Your task to perform on an android device: delete the emails in spam in the gmail app Image 0: 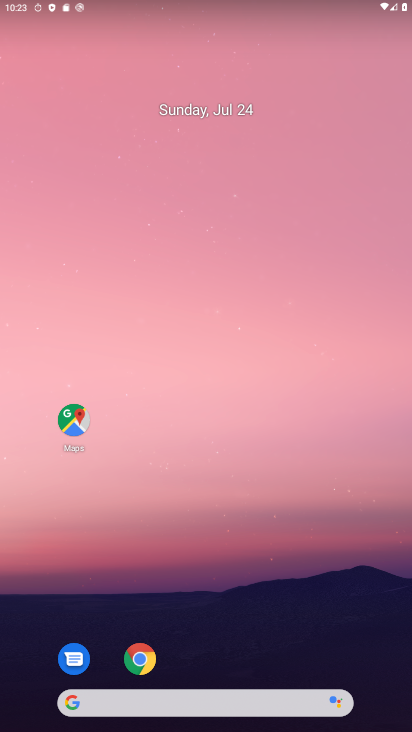
Step 0: drag from (231, 662) to (312, 145)
Your task to perform on an android device: delete the emails in spam in the gmail app Image 1: 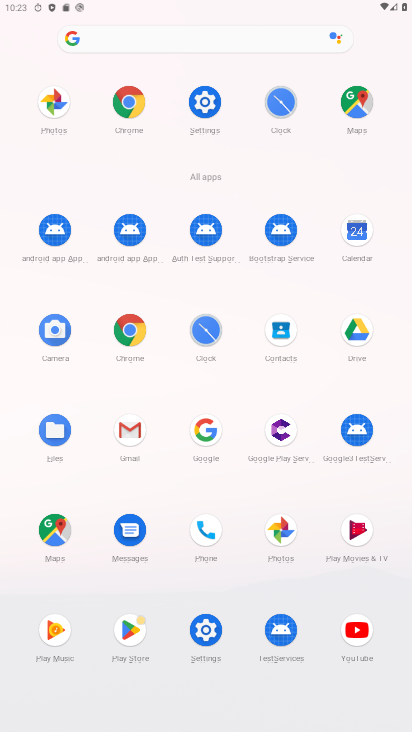
Step 1: drag from (131, 432) to (90, 227)
Your task to perform on an android device: delete the emails in spam in the gmail app Image 2: 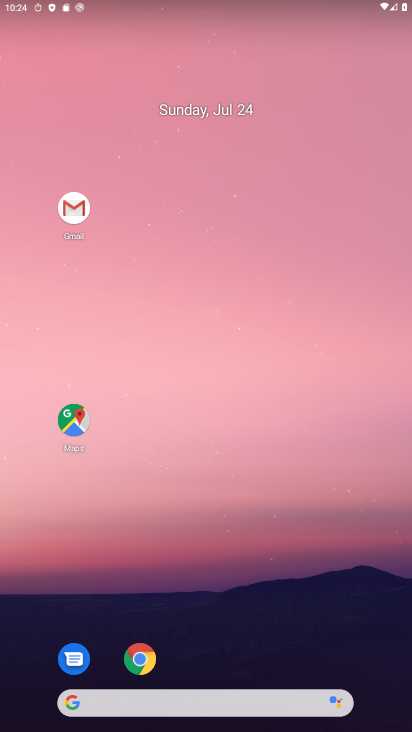
Step 2: click (74, 201)
Your task to perform on an android device: delete the emails in spam in the gmail app Image 3: 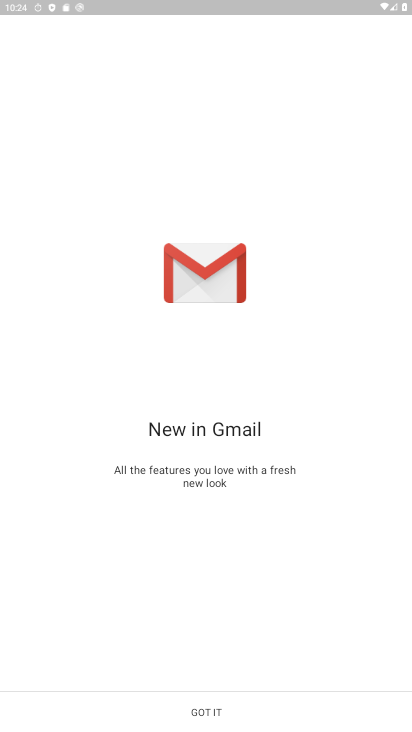
Step 3: click (248, 707)
Your task to perform on an android device: delete the emails in spam in the gmail app Image 4: 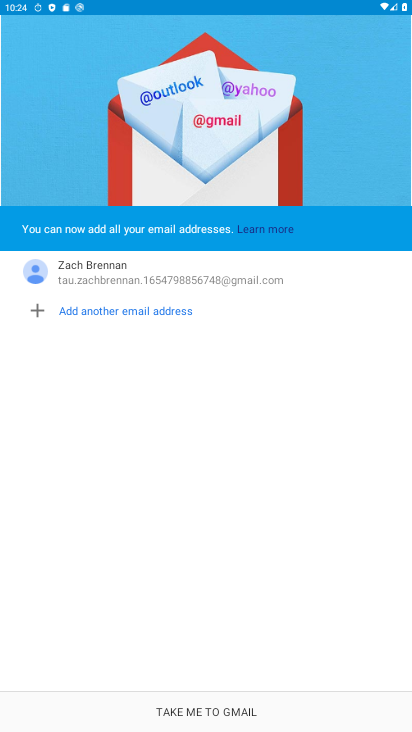
Step 4: click (251, 707)
Your task to perform on an android device: delete the emails in spam in the gmail app Image 5: 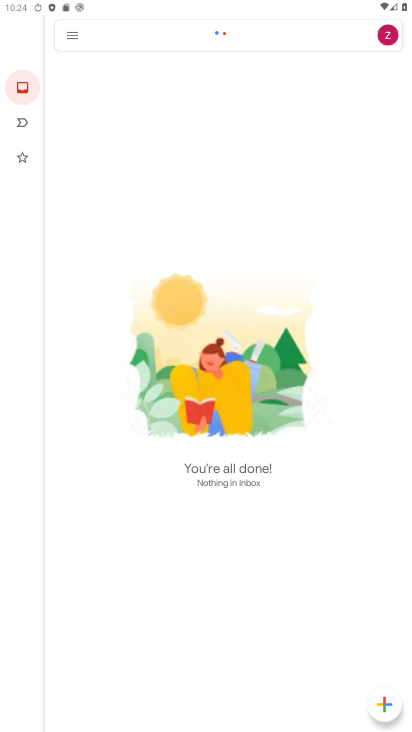
Step 5: click (77, 32)
Your task to perform on an android device: delete the emails in spam in the gmail app Image 6: 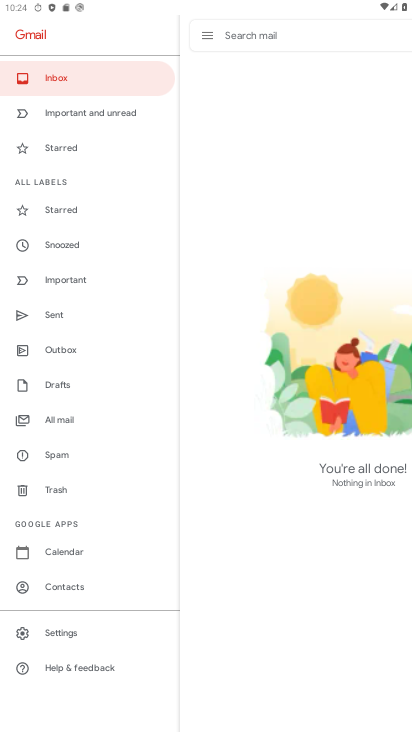
Step 6: click (83, 80)
Your task to perform on an android device: delete the emails in spam in the gmail app Image 7: 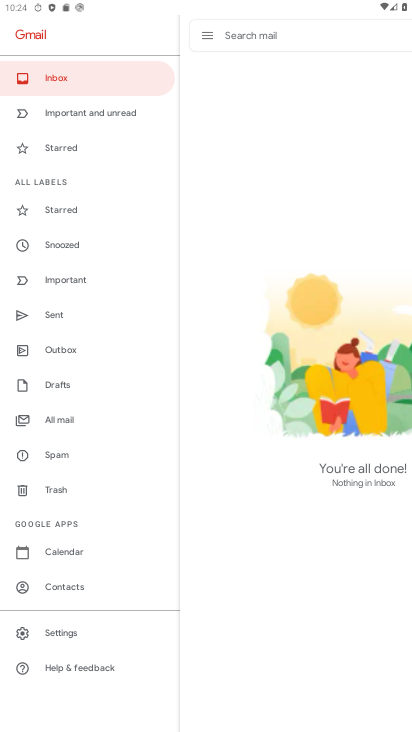
Step 7: task complete